Your task to perform on an android device: Open the stopwatch Image 0: 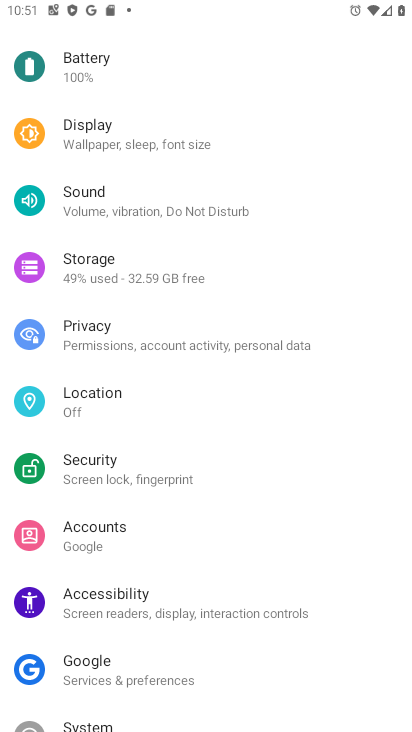
Step 0: press home button
Your task to perform on an android device: Open the stopwatch Image 1: 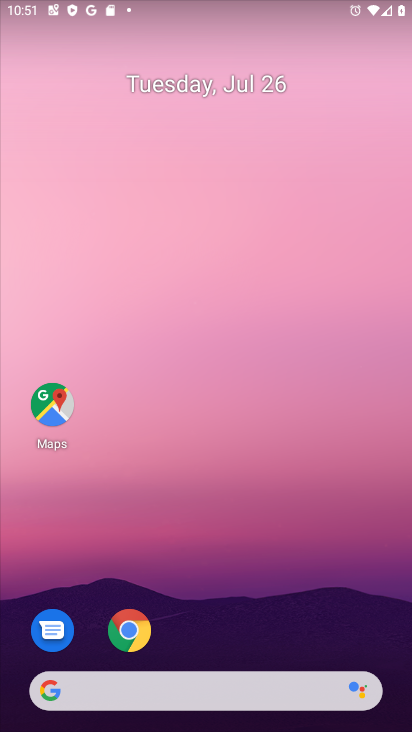
Step 1: drag from (229, 690) to (278, 44)
Your task to perform on an android device: Open the stopwatch Image 2: 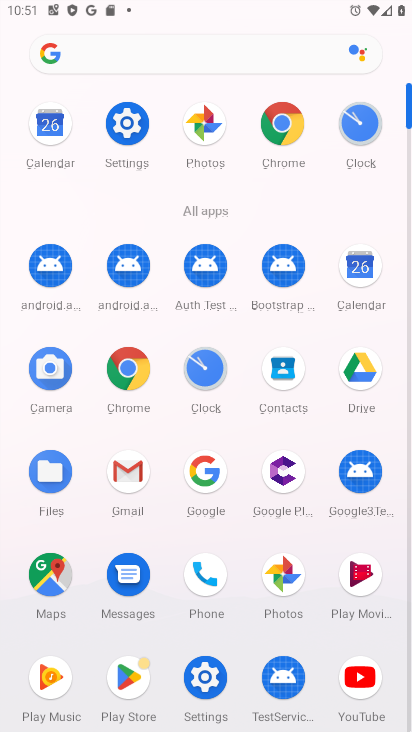
Step 2: click (357, 129)
Your task to perform on an android device: Open the stopwatch Image 3: 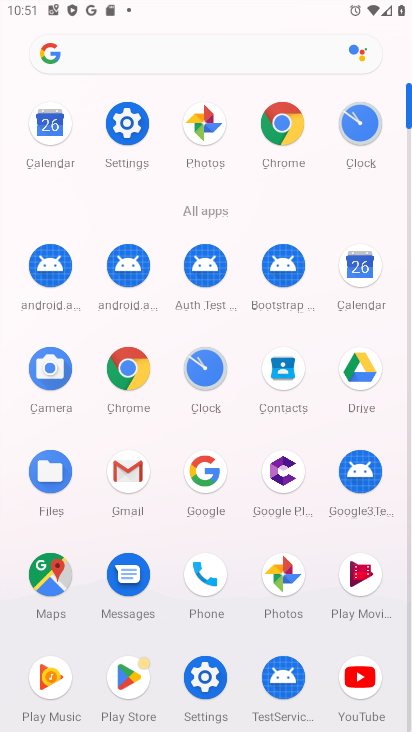
Step 3: click (357, 129)
Your task to perform on an android device: Open the stopwatch Image 4: 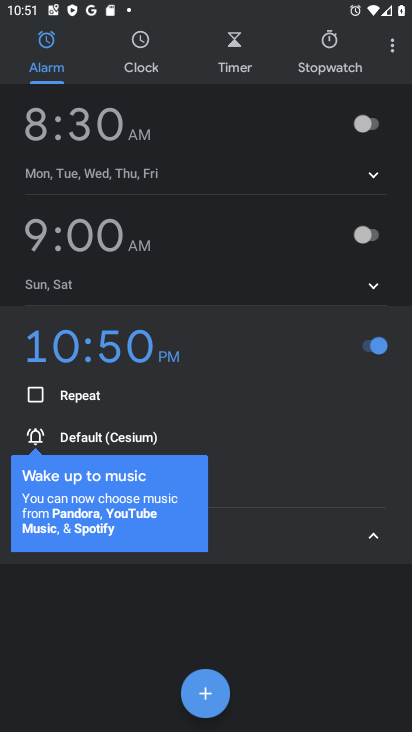
Step 4: click (325, 55)
Your task to perform on an android device: Open the stopwatch Image 5: 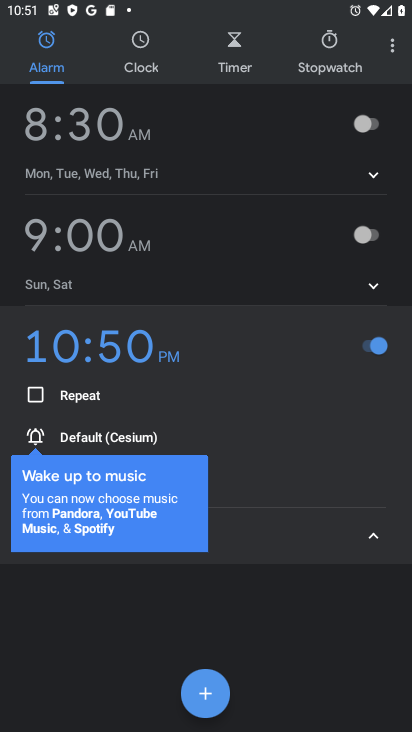
Step 5: click (325, 55)
Your task to perform on an android device: Open the stopwatch Image 6: 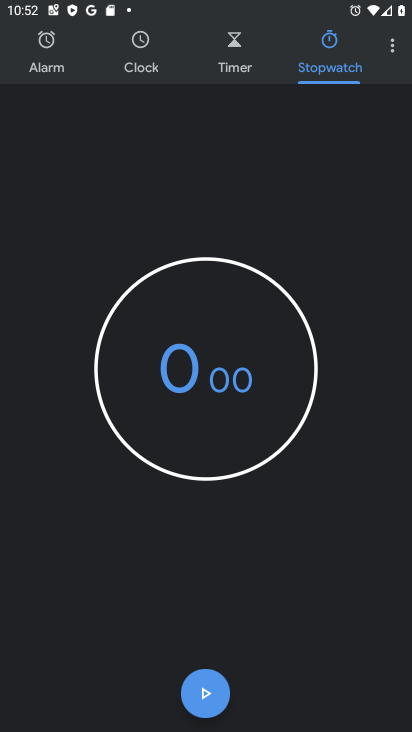
Step 6: task complete